Your task to perform on an android device: check google app version Image 0: 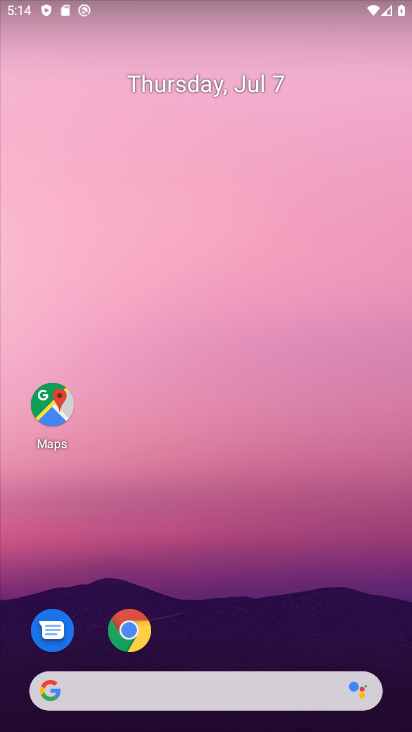
Step 0: drag from (179, 478) to (247, 122)
Your task to perform on an android device: check google app version Image 1: 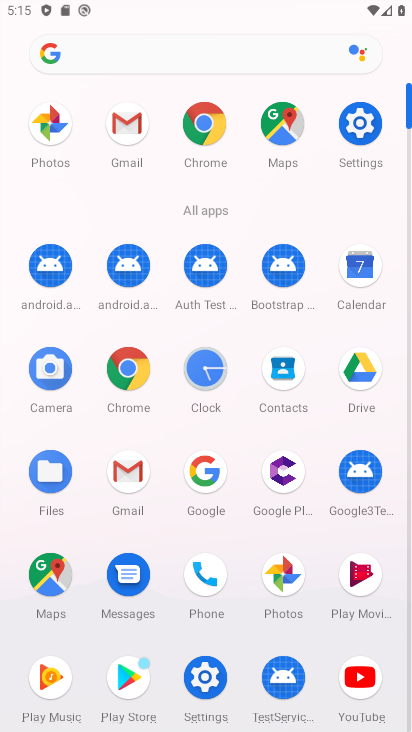
Step 1: click (201, 478)
Your task to perform on an android device: check google app version Image 2: 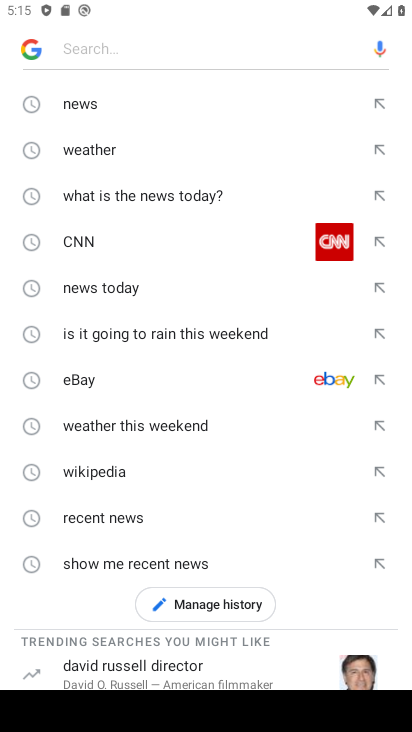
Step 2: click (31, 46)
Your task to perform on an android device: check google app version Image 3: 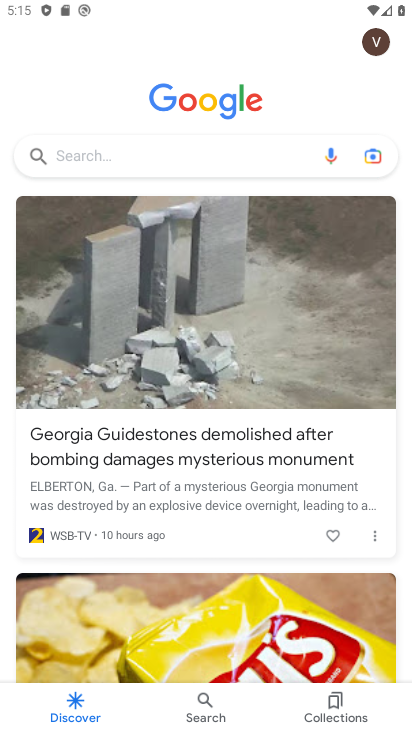
Step 3: click (387, 41)
Your task to perform on an android device: check google app version Image 4: 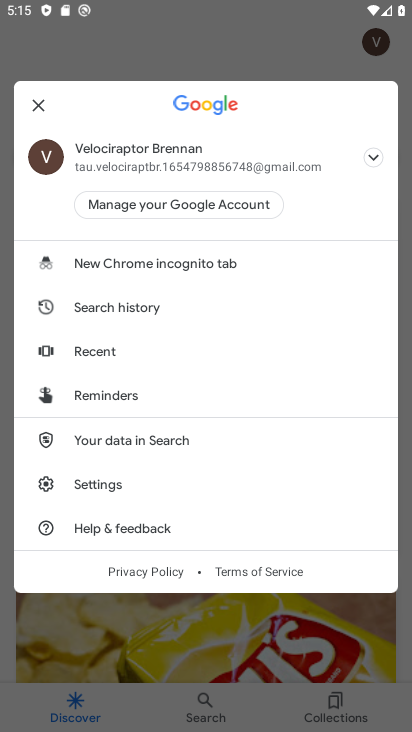
Step 4: click (98, 478)
Your task to perform on an android device: check google app version Image 5: 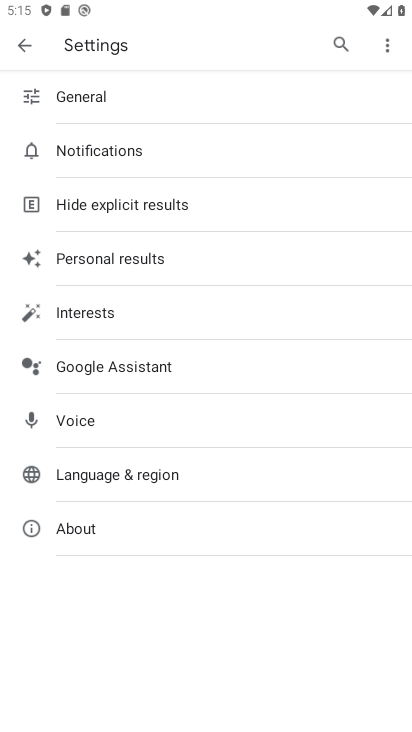
Step 5: click (115, 526)
Your task to perform on an android device: check google app version Image 6: 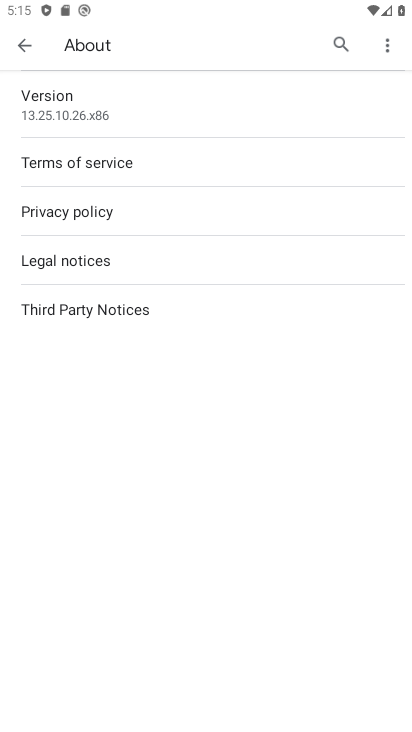
Step 6: task complete